Your task to perform on an android device: toggle wifi Image 0: 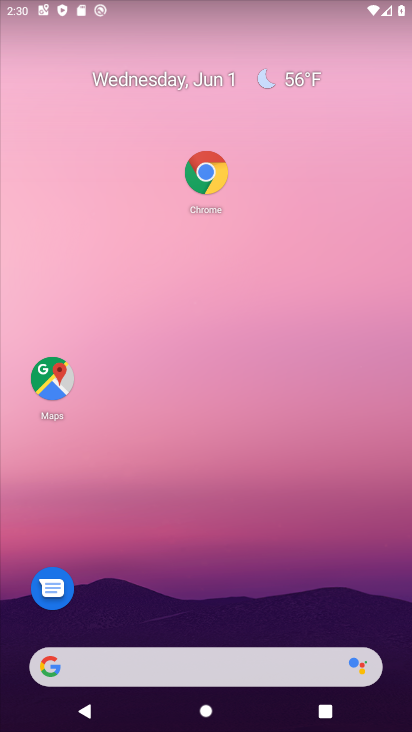
Step 0: drag from (276, 572) to (318, 20)
Your task to perform on an android device: toggle wifi Image 1: 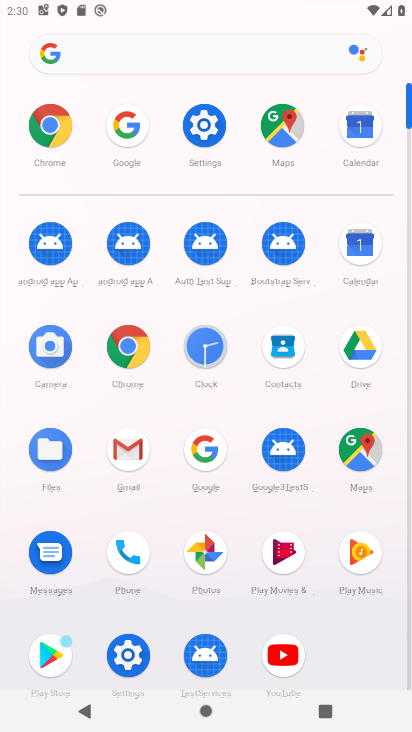
Step 1: click (204, 118)
Your task to perform on an android device: toggle wifi Image 2: 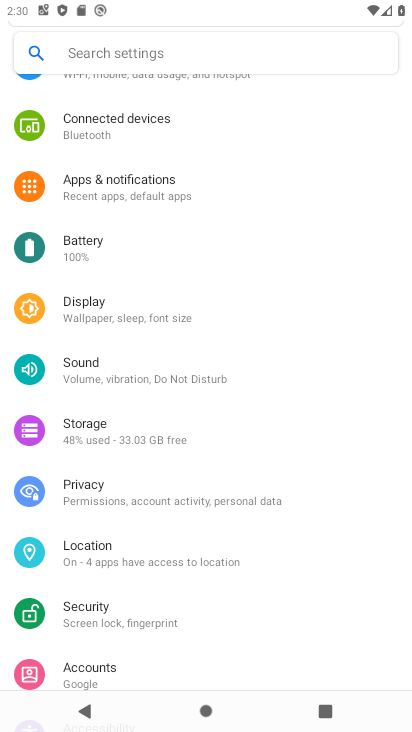
Step 2: drag from (158, 183) to (214, 480)
Your task to perform on an android device: toggle wifi Image 3: 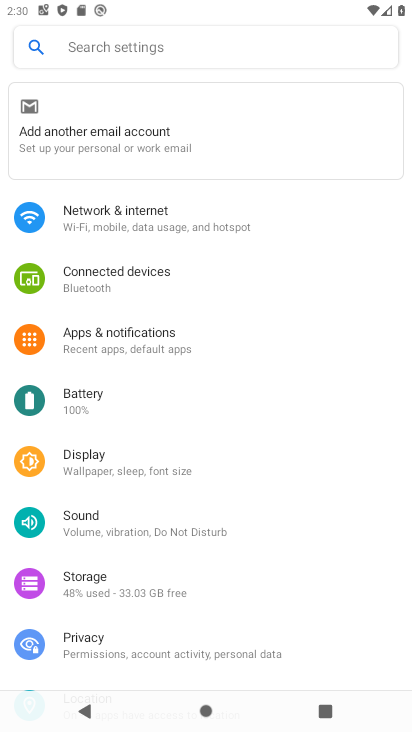
Step 3: click (113, 216)
Your task to perform on an android device: toggle wifi Image 4: 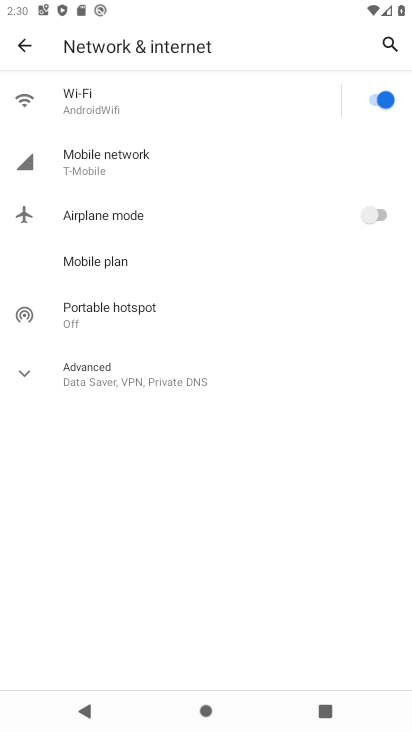
Step 4: click (382, 98)
Your task to perform on an android device: toggle wifi Image 5: 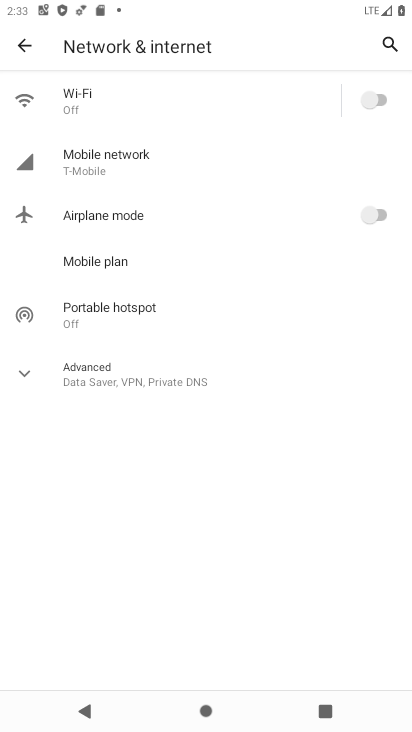
Step 5: task complete